Your task to perform on an android device: Open eBay Image 0: 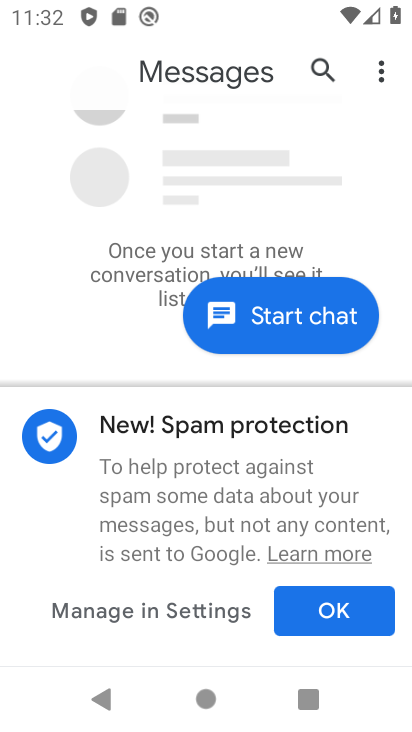
Step 0: press home button
Your task to perform on an android device: Open eBay Image 1: 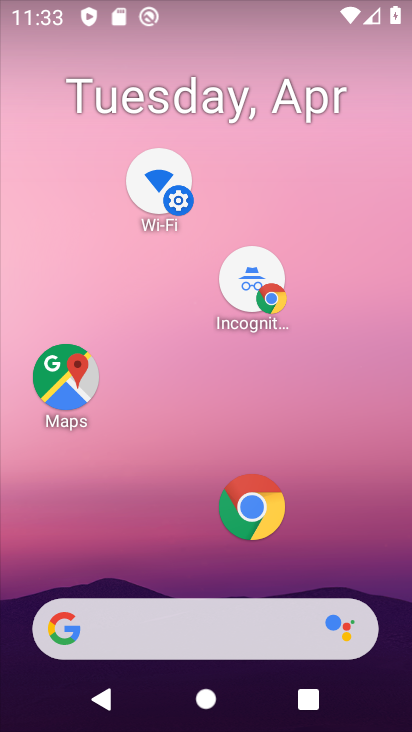
Step 1: click (249, 505)
Your task to perform on an android device: Open eBay Image 2: 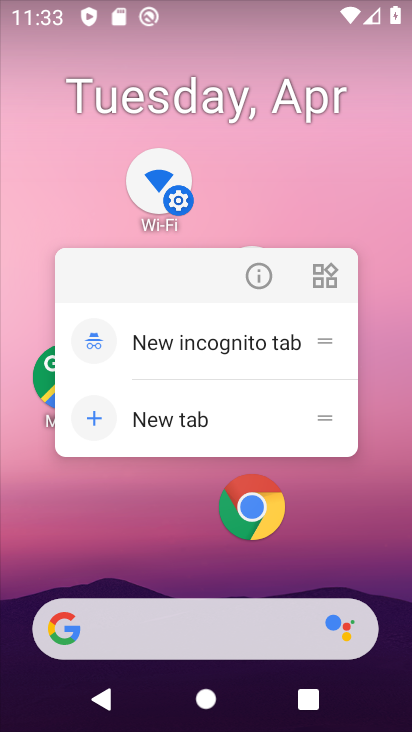
Step 2: click (249, 505)
Your task to perform on an android device: Open eBay Image 3: 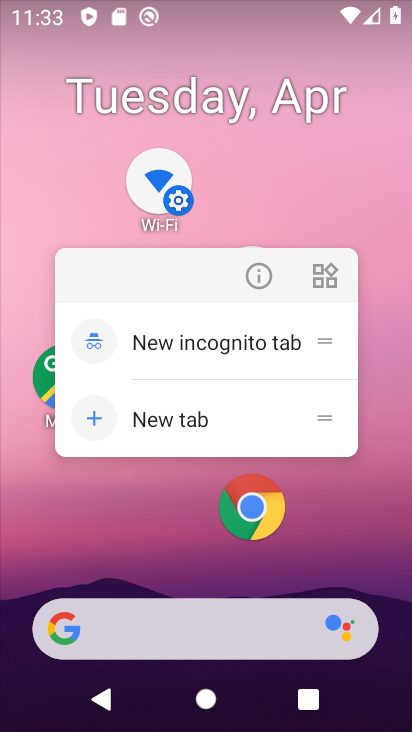
Step 3: click (249, 505)
Your task to perform on an android device: Open eBay Image 4: 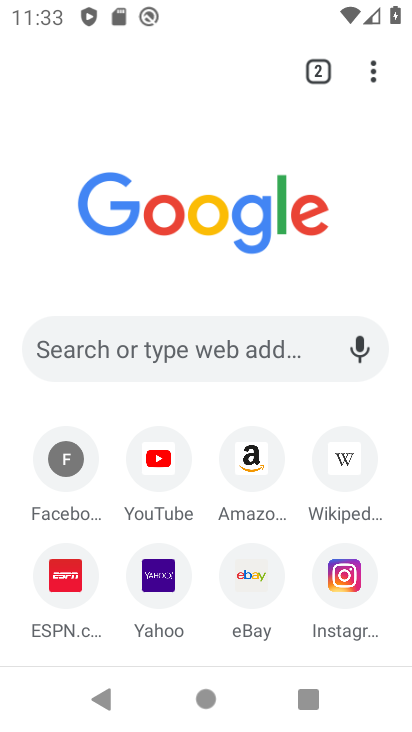
Step 4: click (237, 577)
Your task to perform on an android device: Open eBay Image 5: 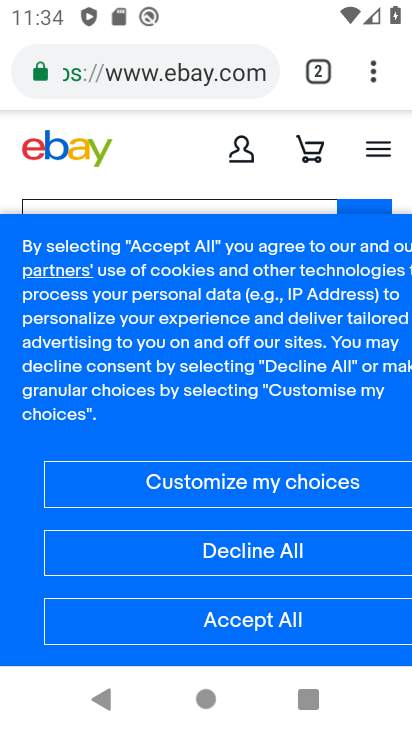
Step 5: task complete